Your task to perform on an android device: choose inbox layout in the gmail app Image 0: 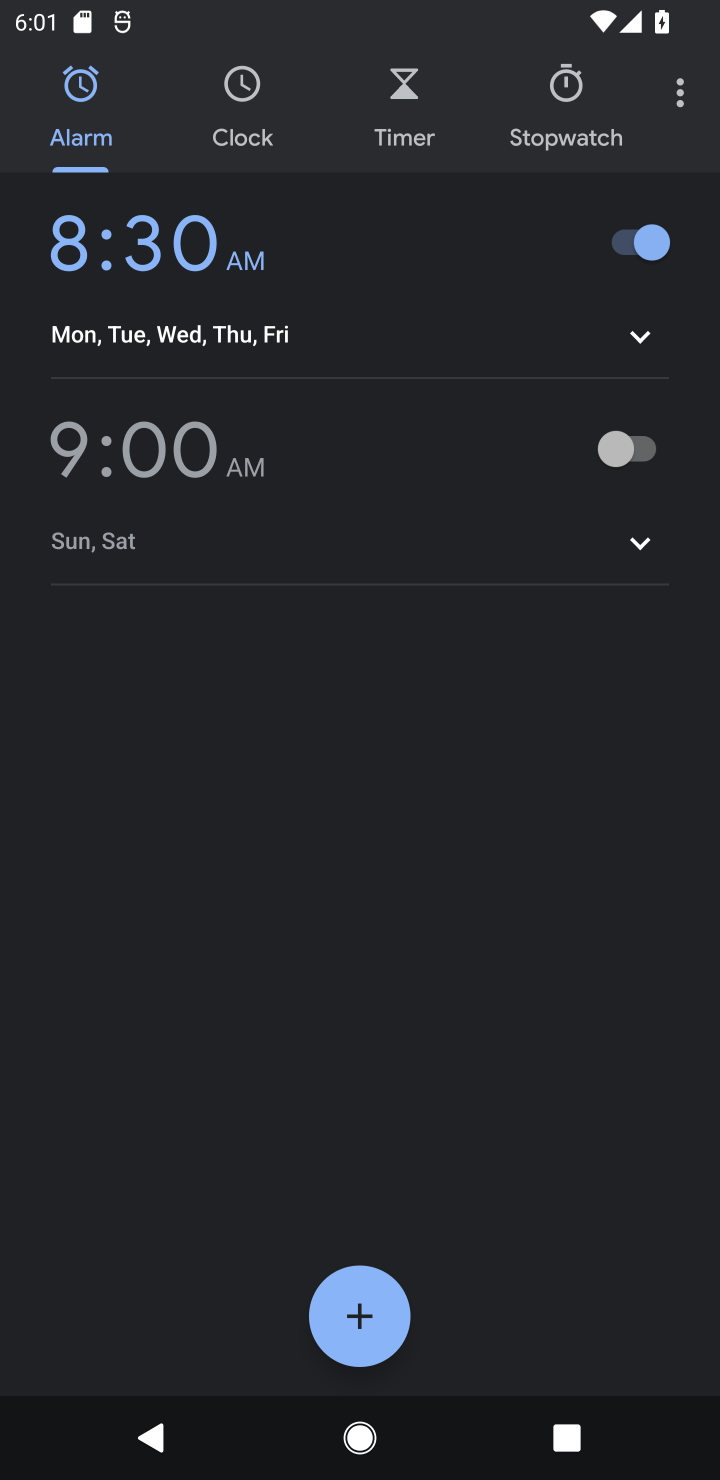
Step 0: task complete